Your task to perform on an android device: What is the news today? Image 0: 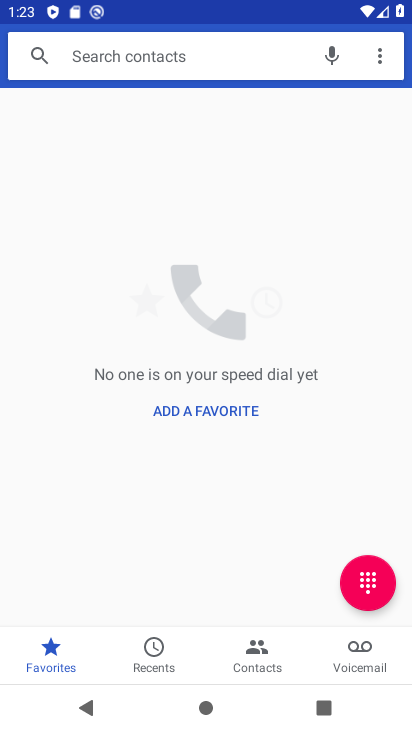
Step 0: press home button
Your task to perform on an android device: What is the news today? Image 1: 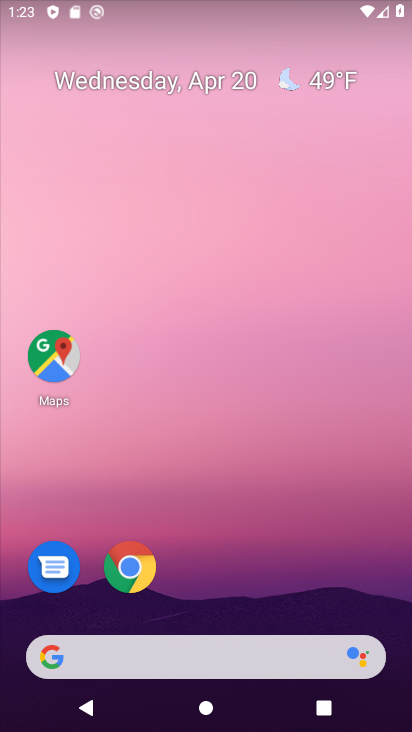
Step 1: task complete